Your task to perform on an android device: turn on bluetooth scan Image 0: 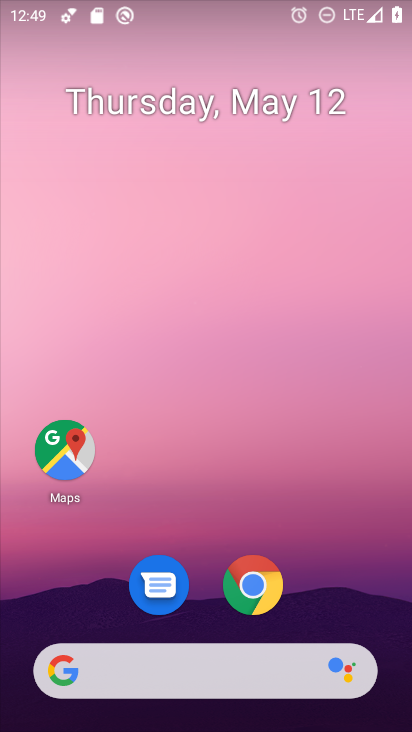
Step 0: drag from (317, 495) to (277, 76)
Your task to perform on an android device: turn on bluetooth scan Image 1: 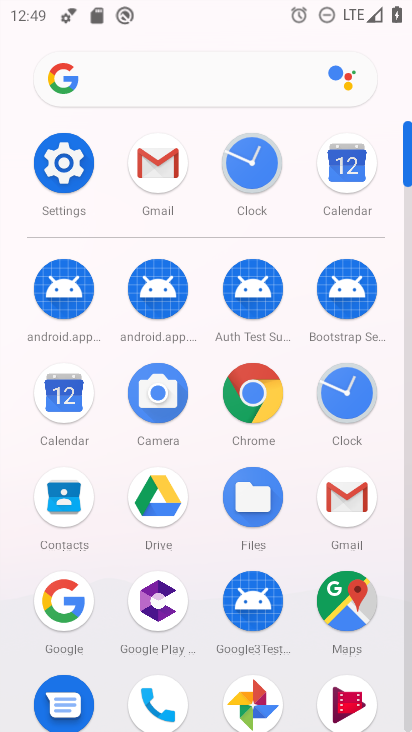
Step 1: click (72, 151)
Your task to perform on an android device: turn on bluetooth scan Image 2: 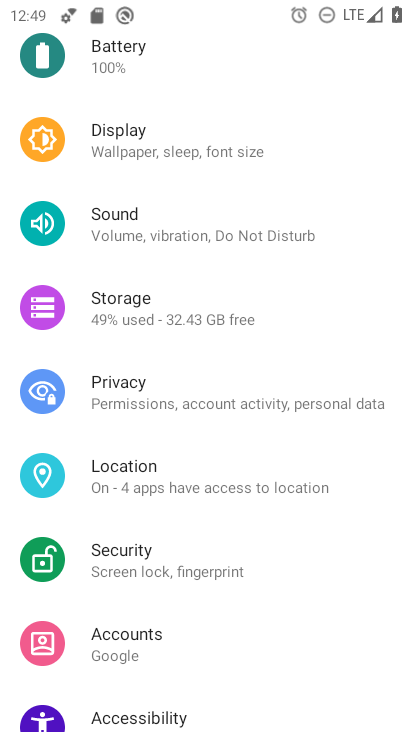
Step 2: click (210, 479)
Your task to perform on an android device: turn on bluetooth scan Image 3: 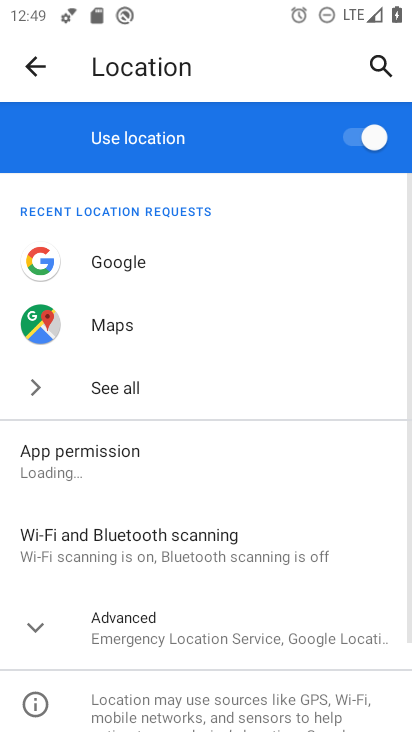
Step 3: click (224, 546)
Your task to perform on an android device: turn on bluetooth scan Image 4: 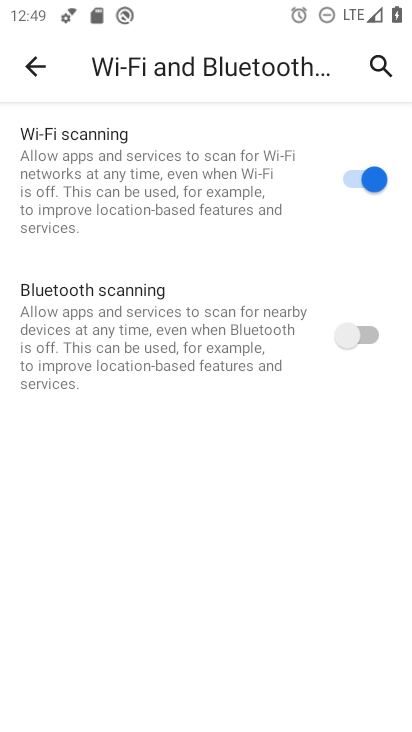
Step 4: click (367, 334)
Your task to perform on an android device: turn on bluetooth scan Image 5: 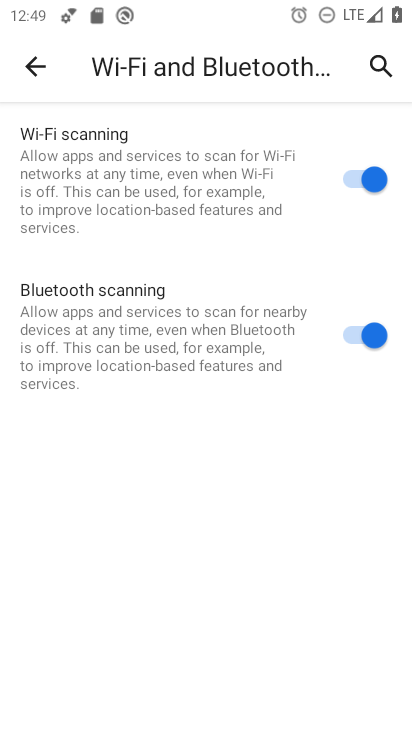
Step 5: task complete